Your task to perform on an android device: turn on wifi Image 0: 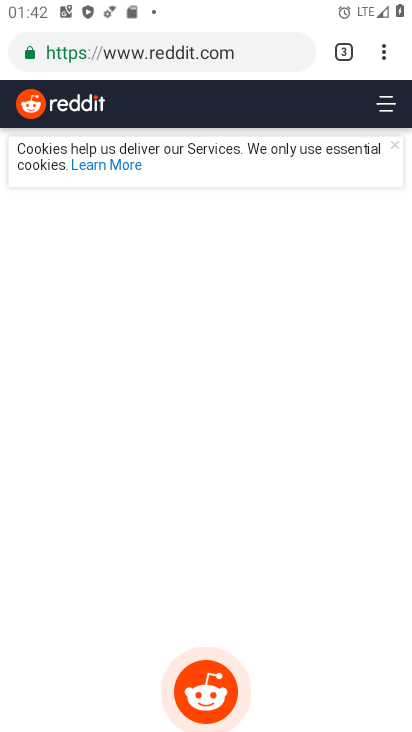
Step 0: press home button
Your task to perform on an android device: turn on wifi Image 1: 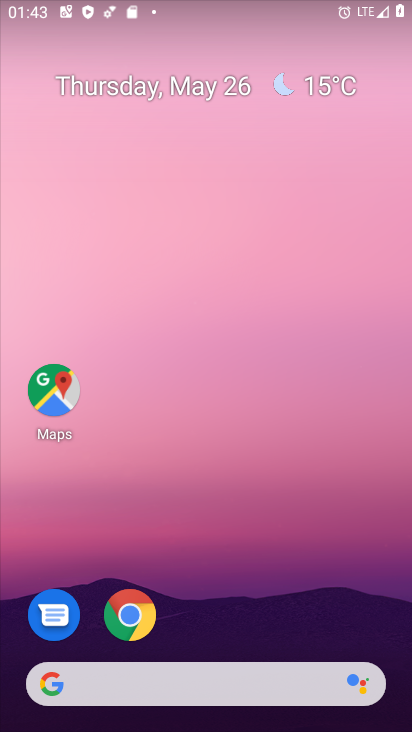
Step 1: drag from (97, 5) to (96, 548)
Your task to perform on an android device: turn on wifi Image 2: 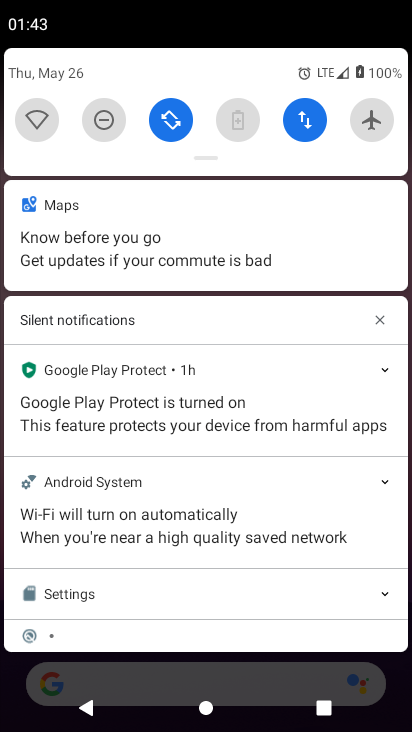
Step 2: click (42, 113)
Your task to perform on an android device: turn on wifi Image 3: 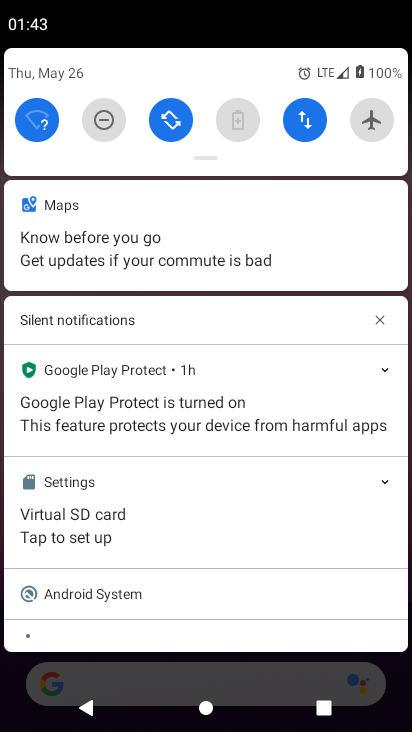
Step 3: task complete